Your task to perform on an android device: Check the news Image 0: 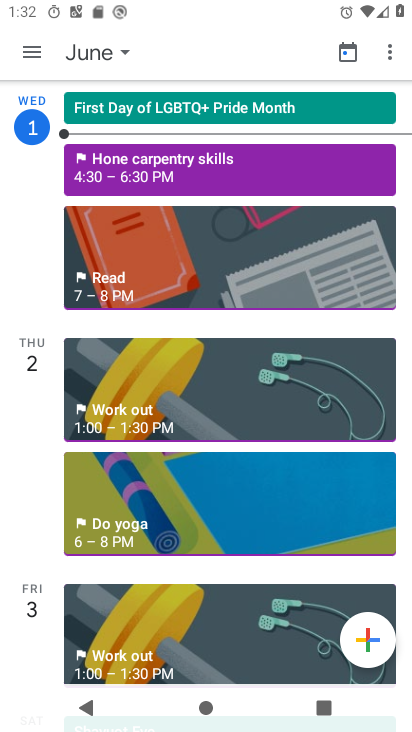
Step 0: press home button
Your task to perform on an android device: Check the news Image 1: 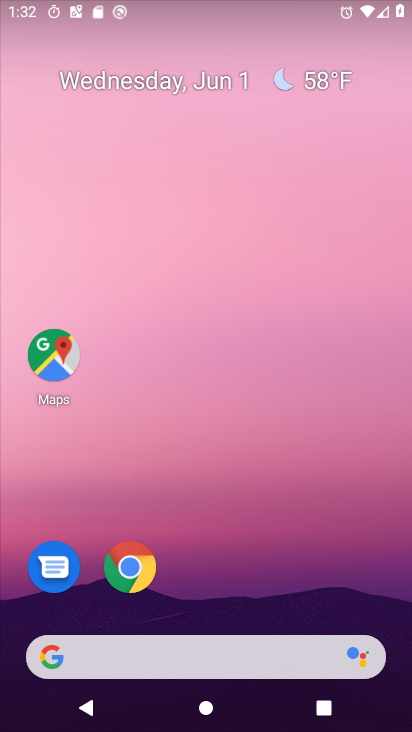
Step 1: drag from (186, 537) to (251, 190)
Your task to perform on an android device: Check the news Image 2: 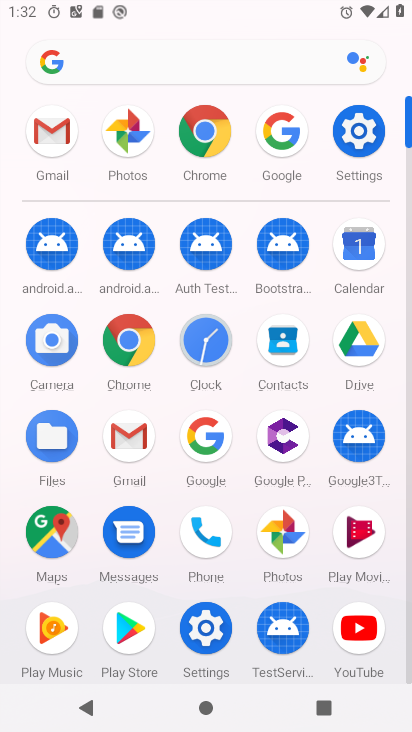
Step 2: click (278, 127)
Your task to perform on an android device: Check the news Image 3: 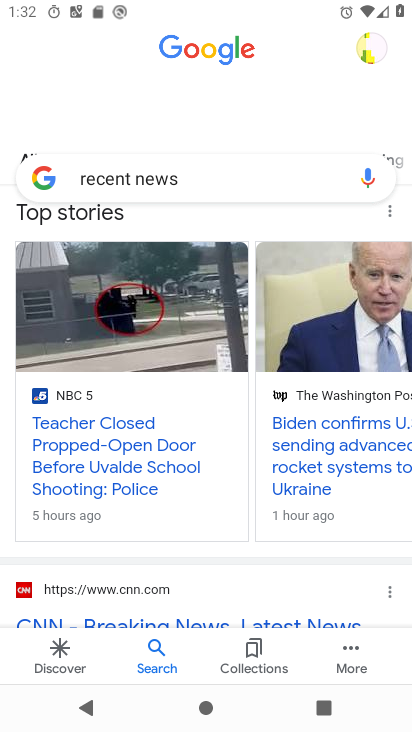
Step 3: click (241, 173)
Your task to perform on an android device: Check the news Image 4: 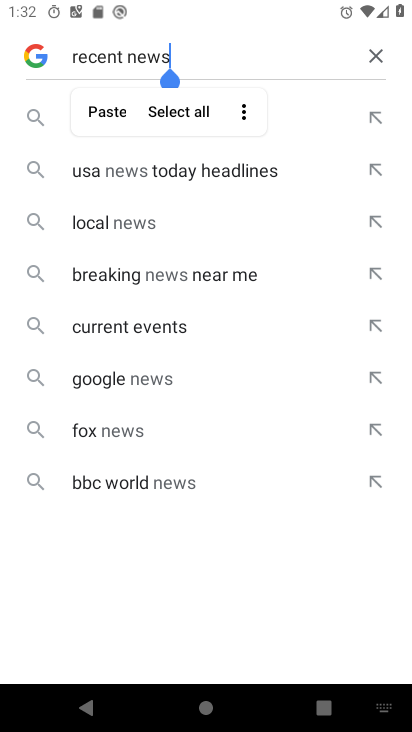
Step 4: click (367, 62)
Your task to perform on an android device: Check the news Image 5: 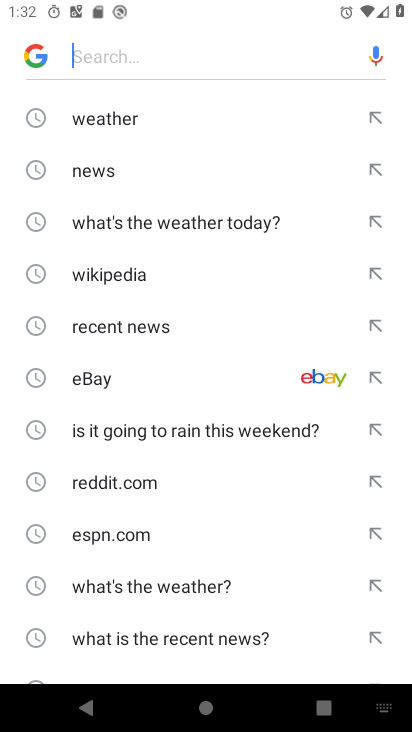
Step 5: click (116, 166)
Your task to perform on an android device: Check the news Image 6: 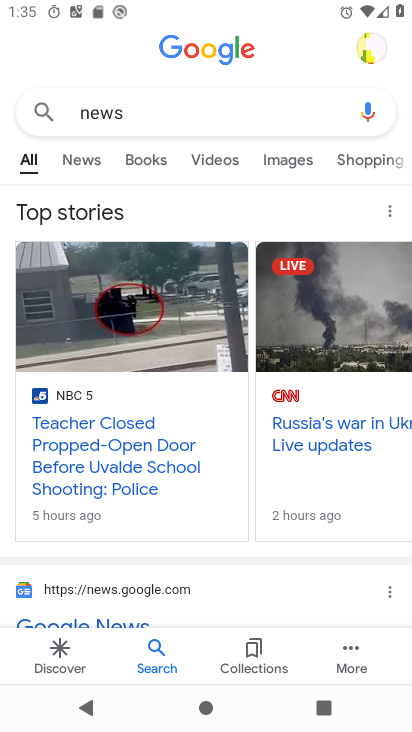
Step 6: task complete